Your task to perform on an android device: turn off javascript in the chrome app Image 0: 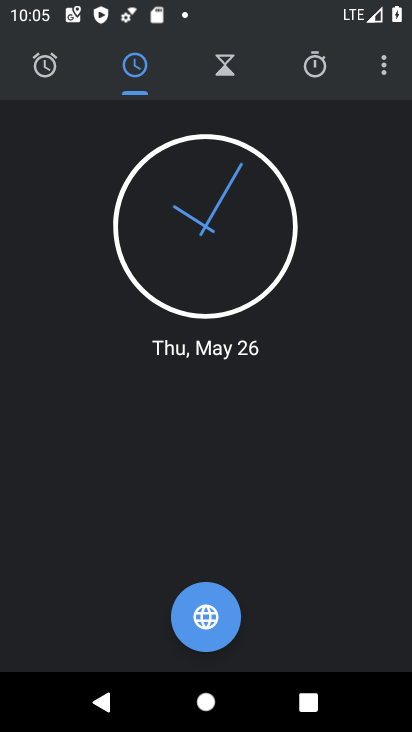
Step 0: press back button
Your task to perform on an android device: turn off javascript in the chrome app Image 1: 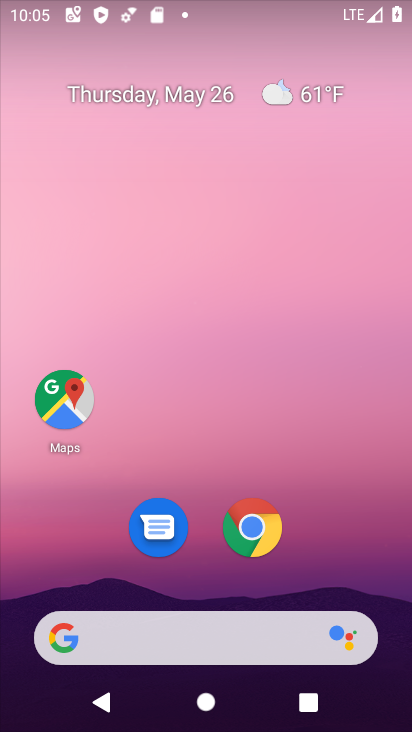
Step 1: click (257, 533)
Your task to perform on an android device: turn off javascript in the chrome app Image 2: 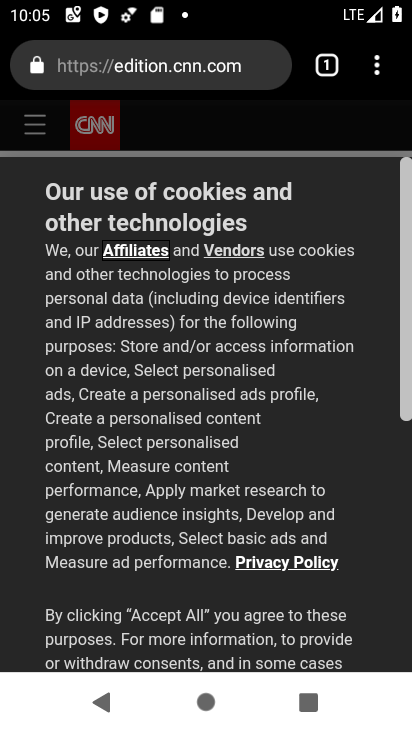
Step 2: click (380, 66)
Your task to perform on an android device: turn off javascript in the chrome app Image 3: 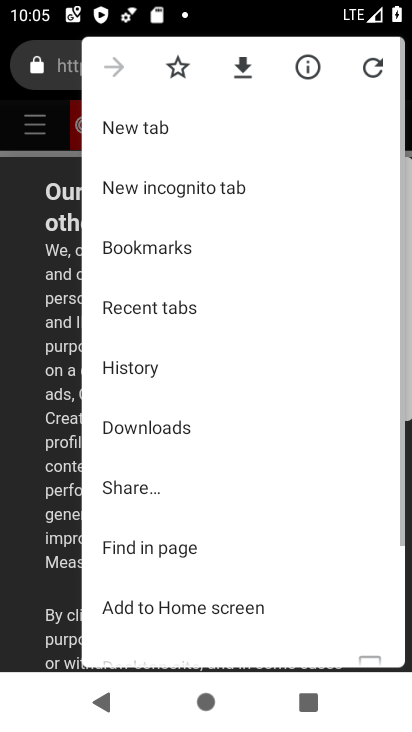
Step 3: drag from (250, 570) to (290, 58)
Your task to perform on an android device: turn off javascript in the chrome app Image 4: 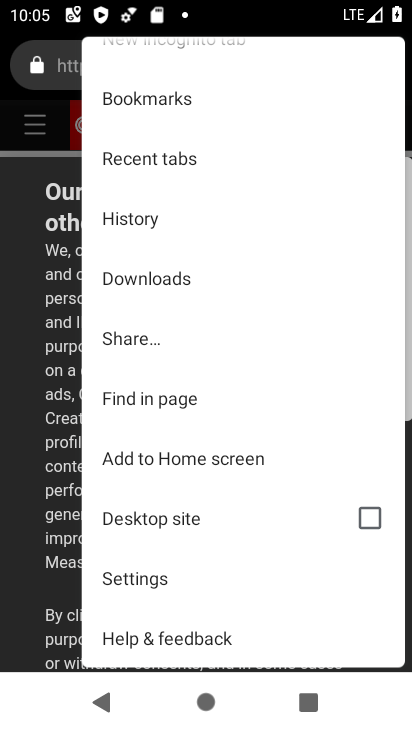
Step 4: click (172, 577)
Your task to perform on an android device: turn off javascript in the chrome app Image 5: 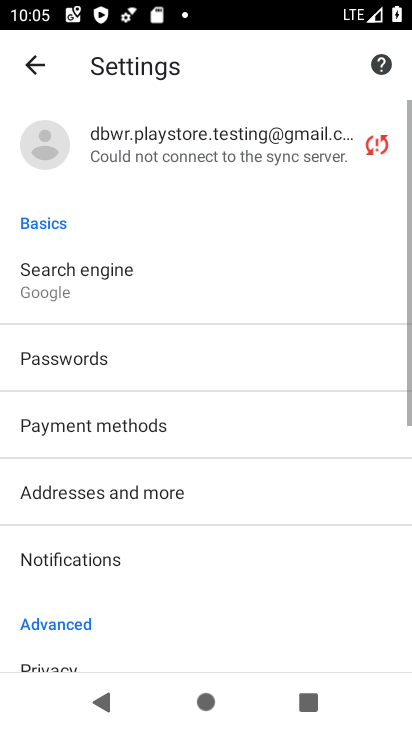
Step 5: drag from (184, 576) to (215, 52)
Your task to perform on an android device: turn off javascript in the chrome app Image 6: 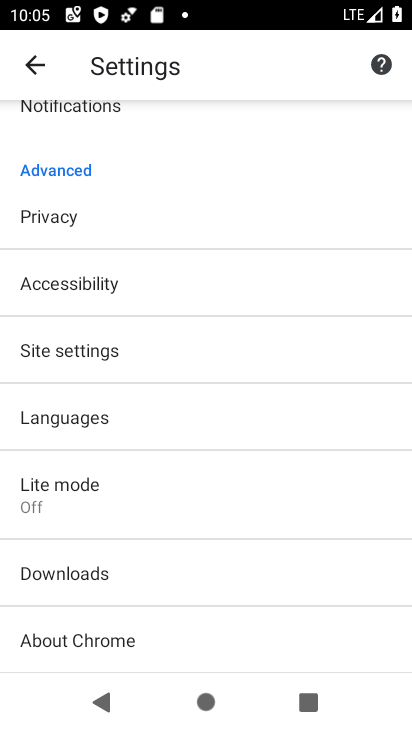
Step 6: click (84, 359)
Your task to perform on an android device: turn off javascript in the chrome app Image 7: 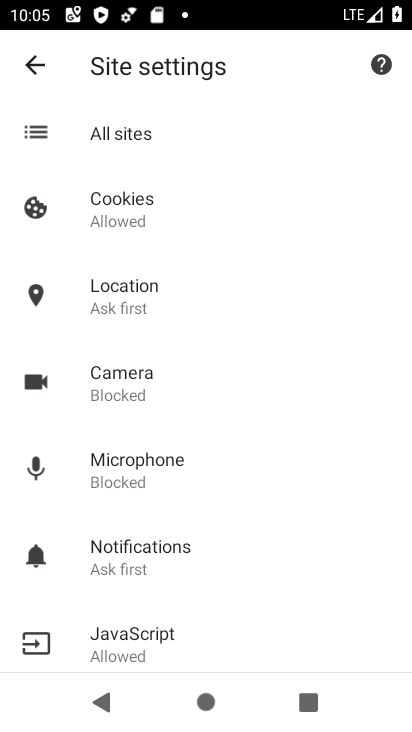
Step 7: click (149, 633)
Your task to perform on an android device: turn off javascript in the chrome app Image 8: 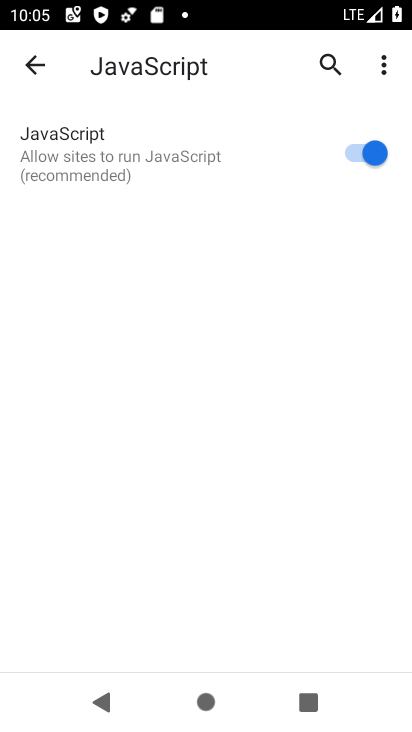
Step 8: click (374, 152)
Your task to perform on an android device: turn off javascript in the chrome app Image 9: 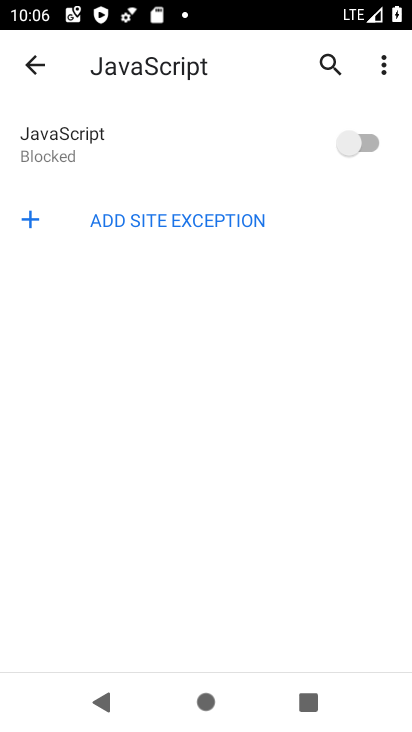
Step 9: task complete